Your task to perform on an android device: change notifications settings Image 0: 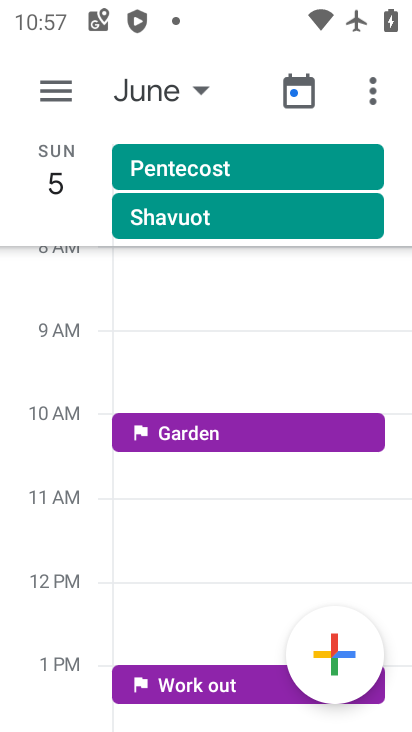
Step 0: press home button
Your task to perform on an android device: change notifications settings Image 1: 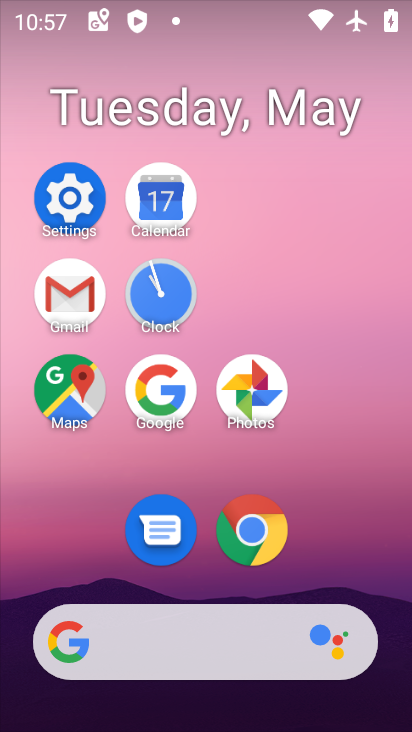
Step 1: click (74, 197)
Your task to perform on an android device: change notifications settings Image 2: 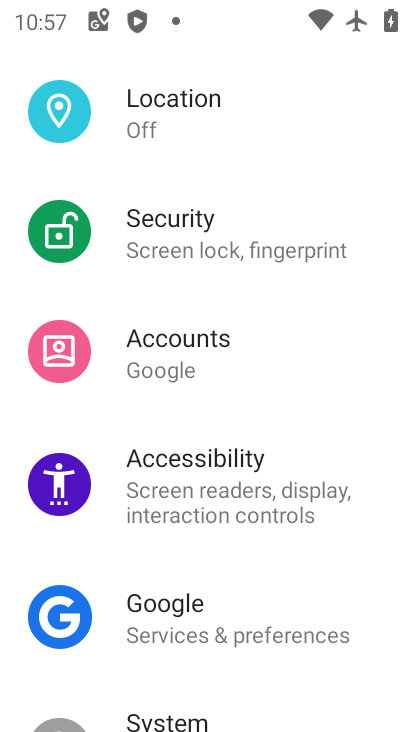
Step 2: drag from (311, 199) to (265, 523)
Your task to perform on an android device: change notifications settings Image 3: 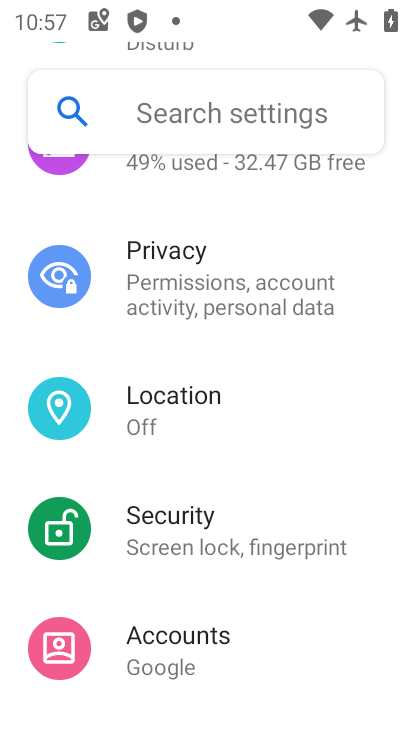
Step 3: drag from (346, 254) to (365, 543)
Your task to perform on an android device: change notifications settings Image 4: 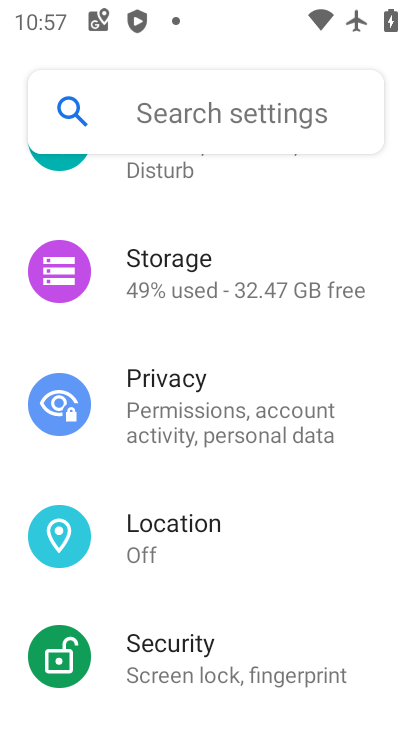
Step 4: drag from (299, 197) to (289, 626)
Your task to perform on an android device: change notifications settings Image 5: 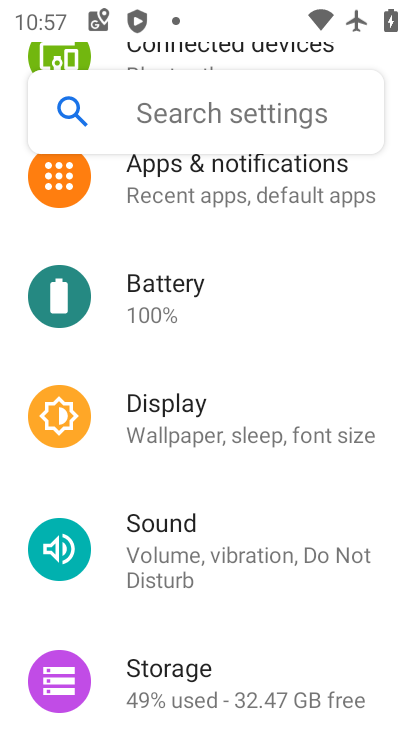
Step 5: click (263, 179)
Your task to perform on an android device: change notifications settings Image 6: 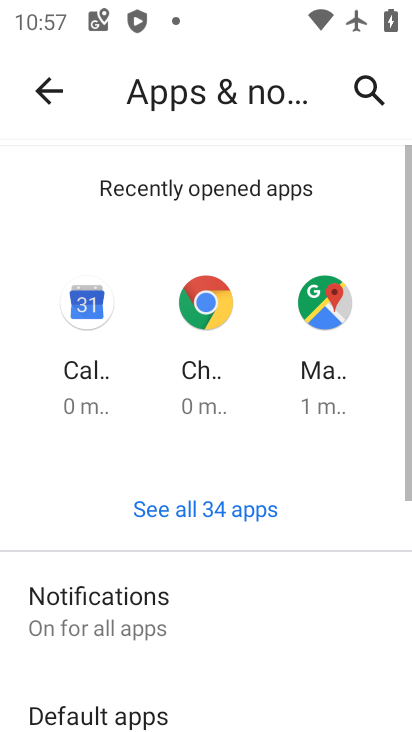
Step 6: click (161, 606)
Your task to perform on an android device: change notifications settings Image 7: 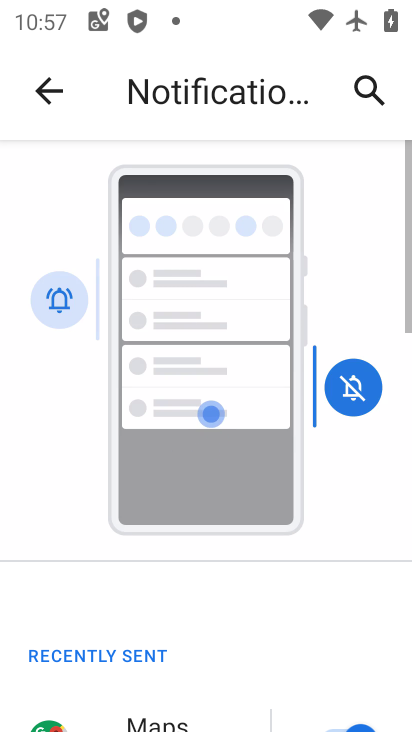
Step 7: drag from (225, 634) to (223, 212)
Your task to perform on an android device: change notifications settings Image 8: 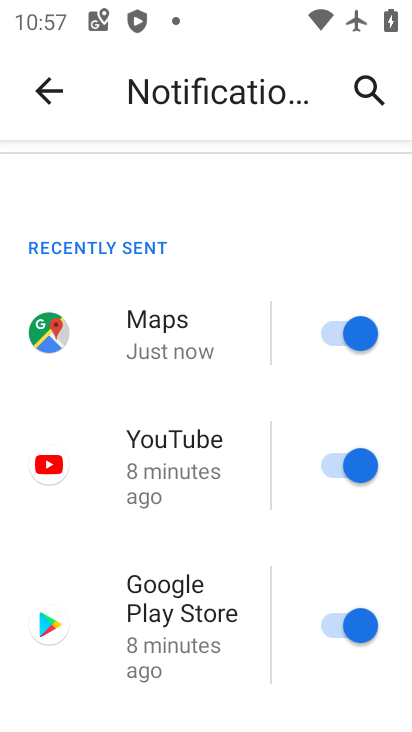
Step 8: drag from (192, 644) to (204, 198)
Your task to perform on an android device: change notifications settings Image 9: 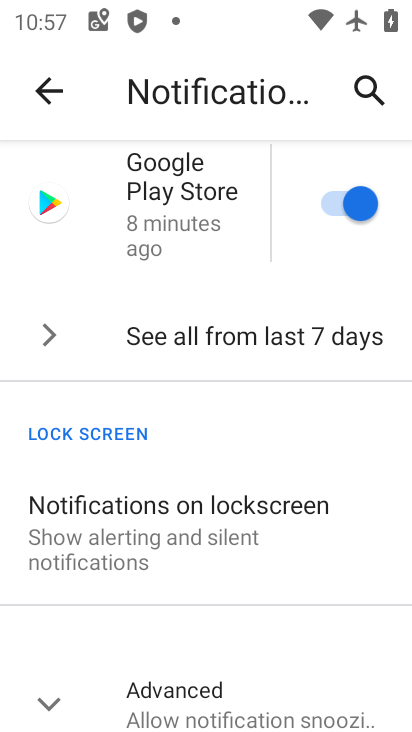
Step 9: drag from (204, 571) to (191, 203)
Your task to perform on an android device: change notifications settings Image 10: 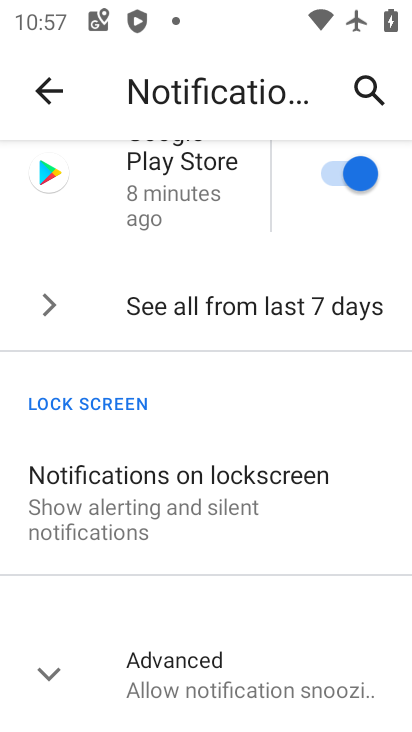
Step 10: click (217, 659)
Your task to perform on an android device: change notifications settings Image 11: 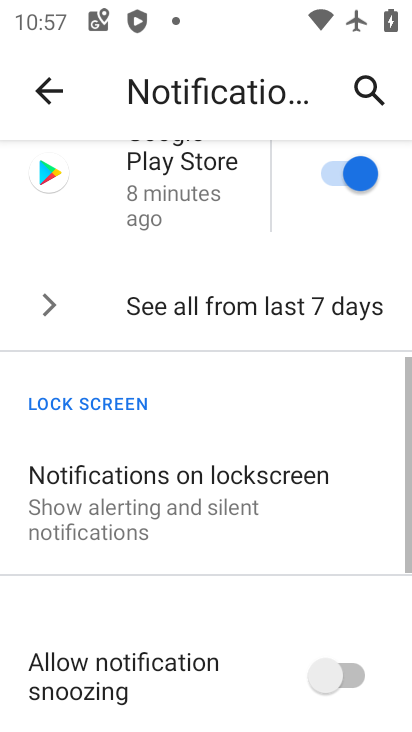
Step 11: drag from (216, 654) to (206, 196)
Your task to perform on an android device: change notifications settings Image 12: 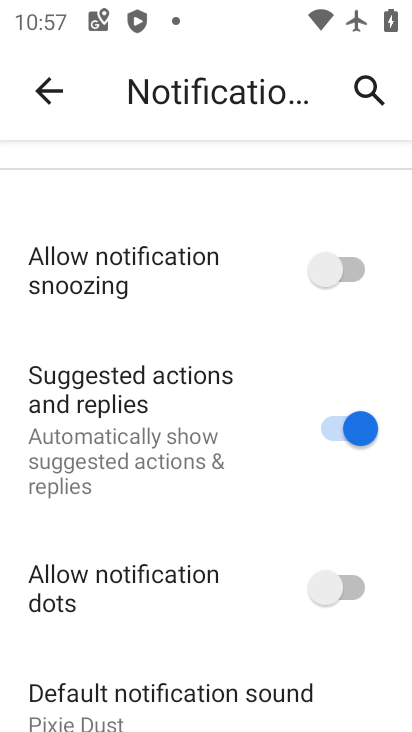
Step 12: click (353, 265)
Your task to perform on an android device: change notifications settings Image 13: 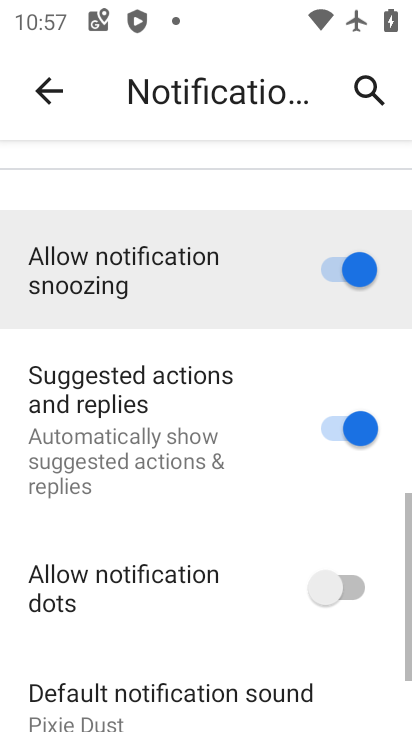
Step 13: click (379, 419)
Your task to perform on an android device: change notifications settings Image 14: 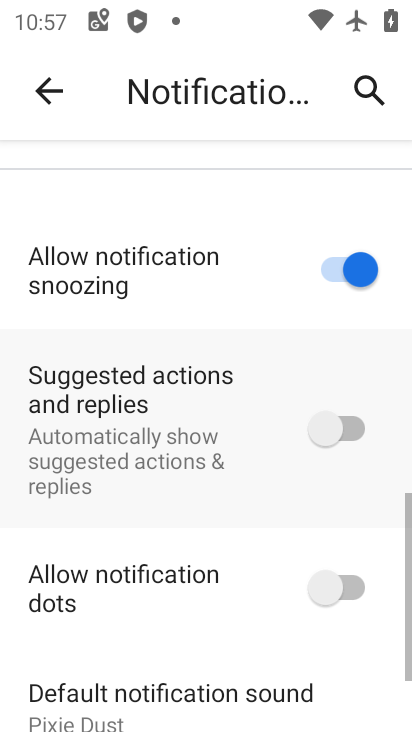
Step 14: click (324, 595)
Your task to perform on an android device: change notifications settings Image 15: 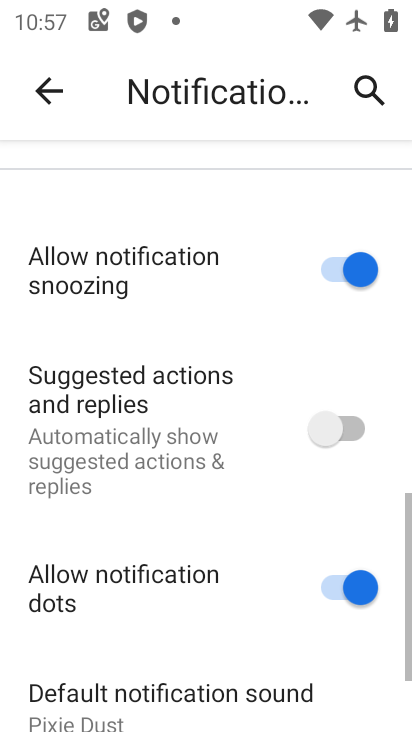
Step 15: task complete